Your task to perform on an android device: check battery use Image 0: 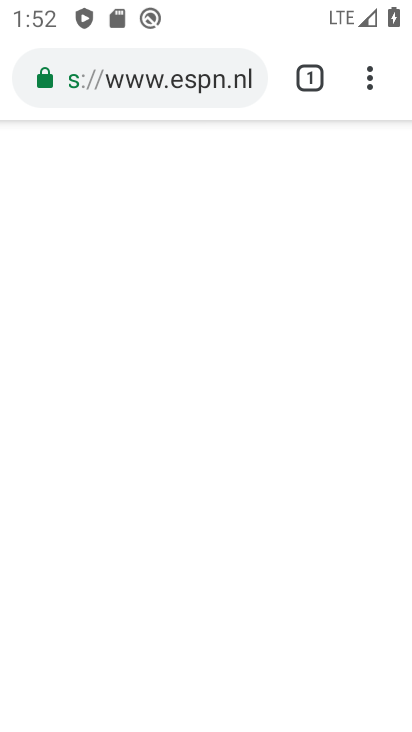
Step 0: press home button
Your task to perform on an android device: check battery use Image 1: 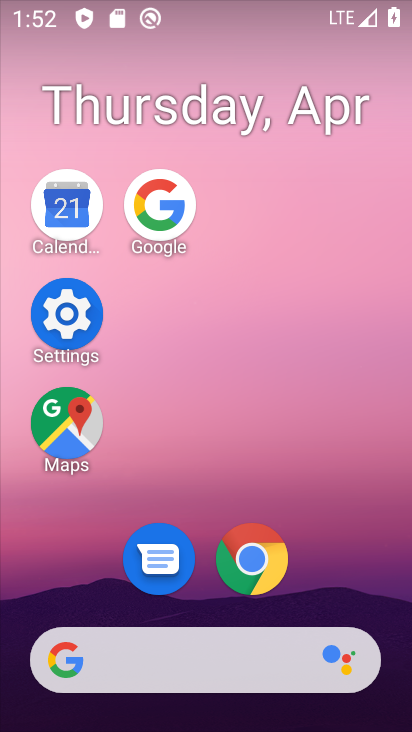
Step 1: click (79, 317)
Your task to perform on an android device: check battery use Image 2: 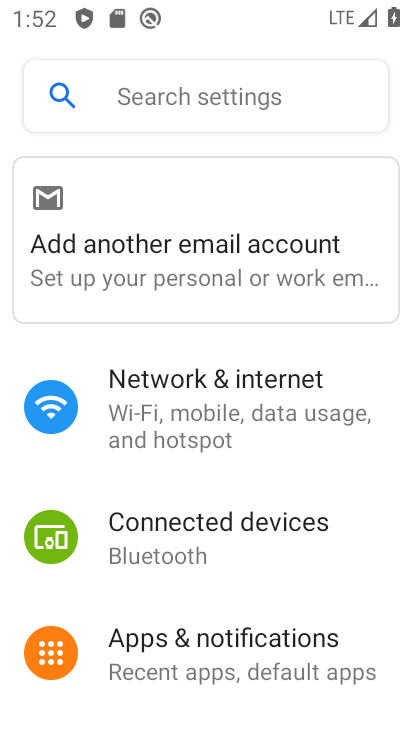
Step 2: drag from (229, 489) to (217, 110)
Your task to perform on an android device: check battery use Image 3: 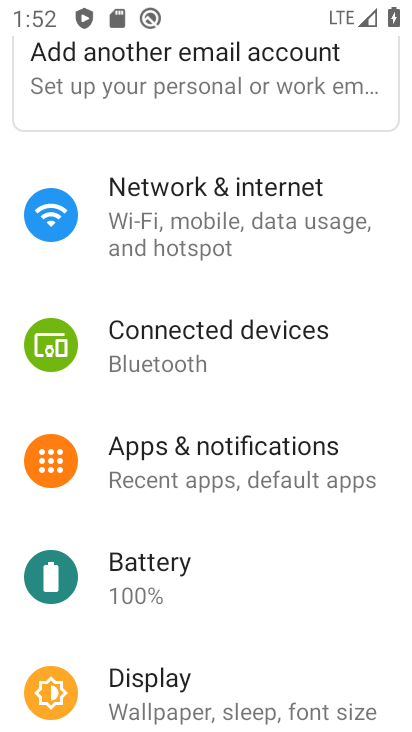
Step 3: click (174, 608)
Your task to perform on an android device: check battery use Image 4: 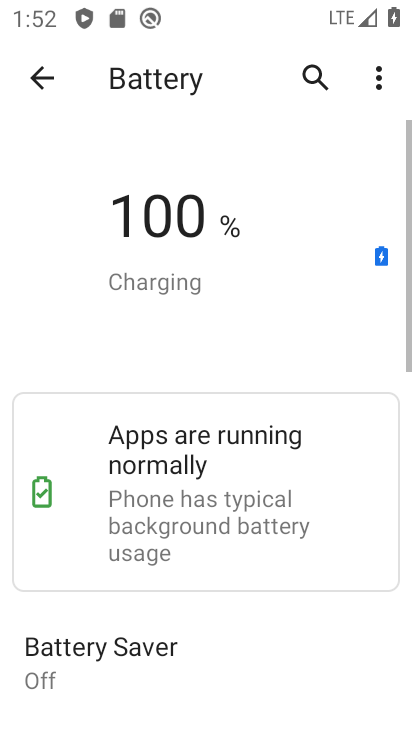
Step 4: click (385, 71)
Your task to perform on an android device: check battery use Image 5: 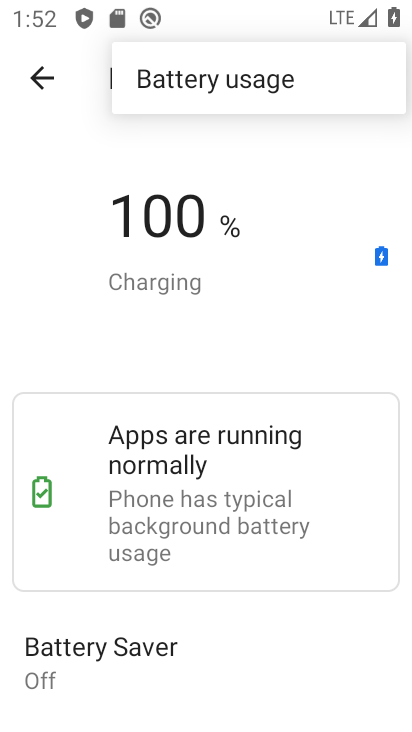
Step 5: click (353, 94)
Your task to perform on an android device: check battery use Image 6: 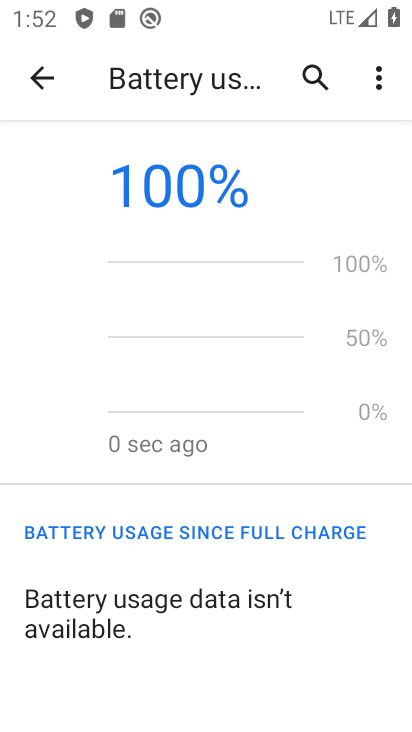
Step 6: task complete